Your task to perform on an android device: turn off wifi Image 0: 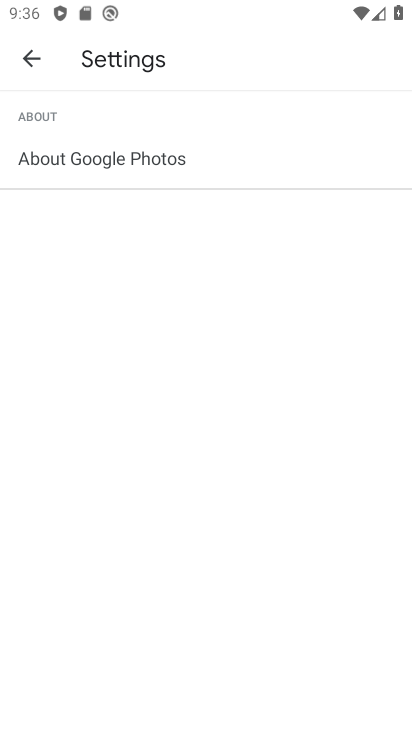
Step 0: press home button
Your task to perform on an android device: turn off wifi Image 1: 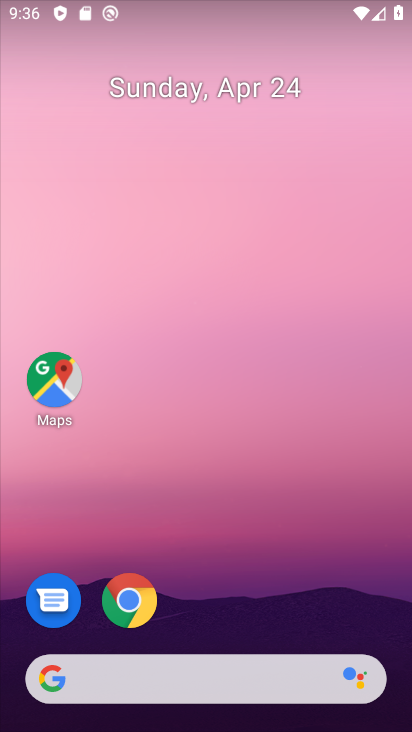
Step 1: drag from (229, 615) to (266, 19)
Your task to perform on an android device: turn off wifi Image 2: 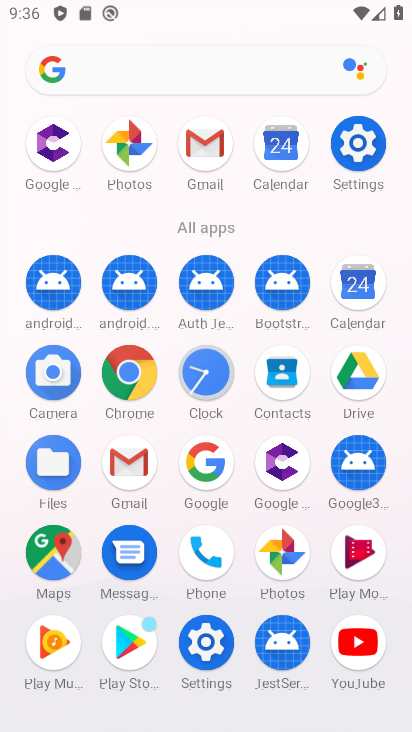
Step 2: click (365, 146)
Your task to perform on an android device: turn off wifi Image 3: 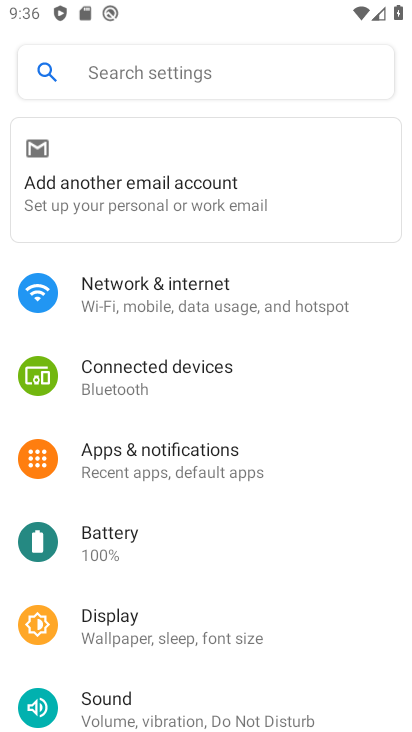
Step 3: click (135, 291)
Your task to perform on an android device: turn off wifi Image 4: 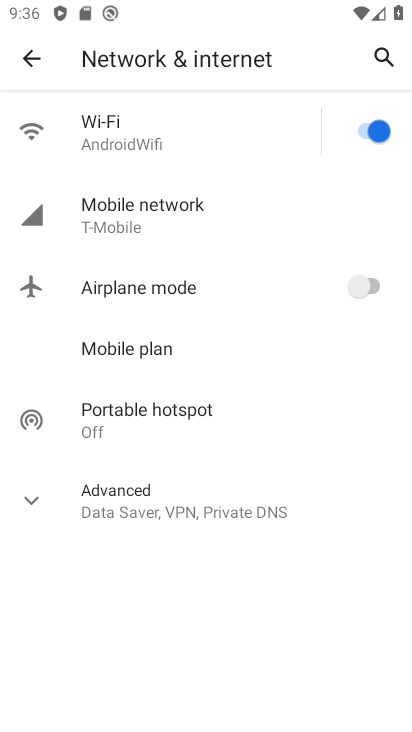
Step 4: click (363, 123)
Your task to perform on an android device: turn off wifi Image 5: 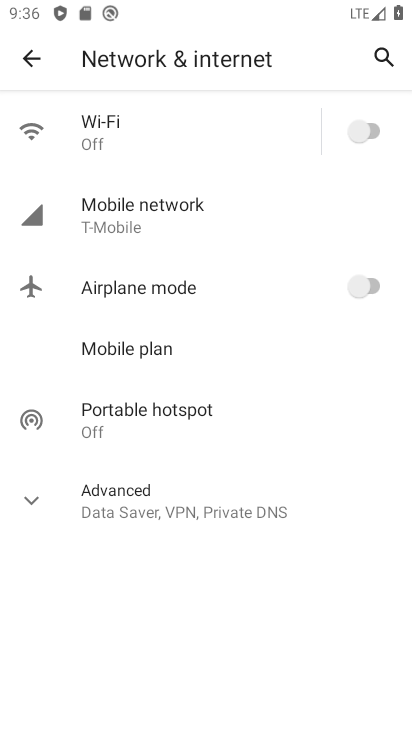
Step 5: task complete